Your task to perform on an android device: Turn off the flashlight Image 0: 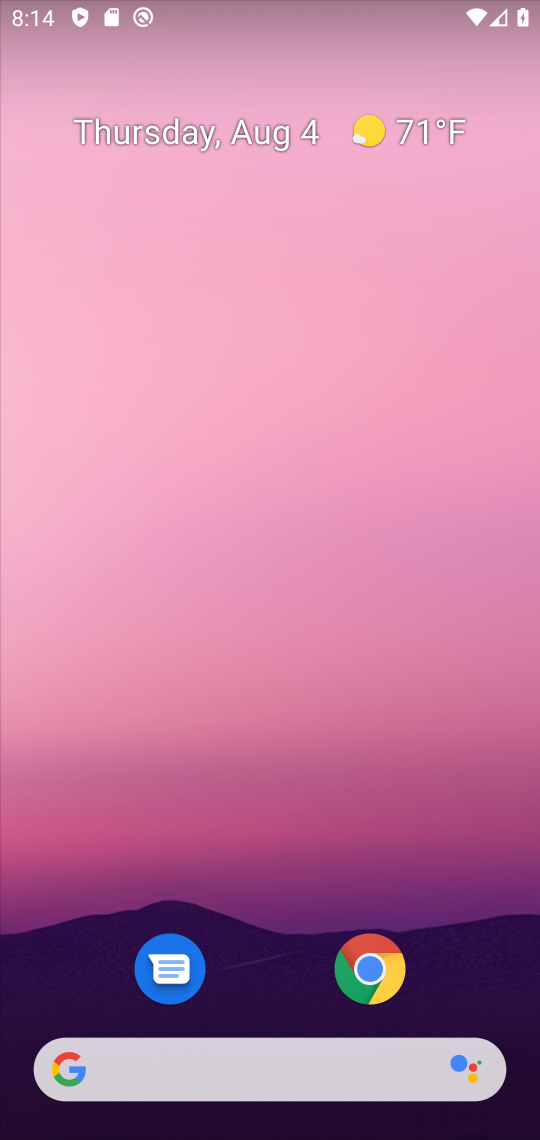
Step 0: press home button
Your task to perform on an android device: Turn off the flashlight Image 1: 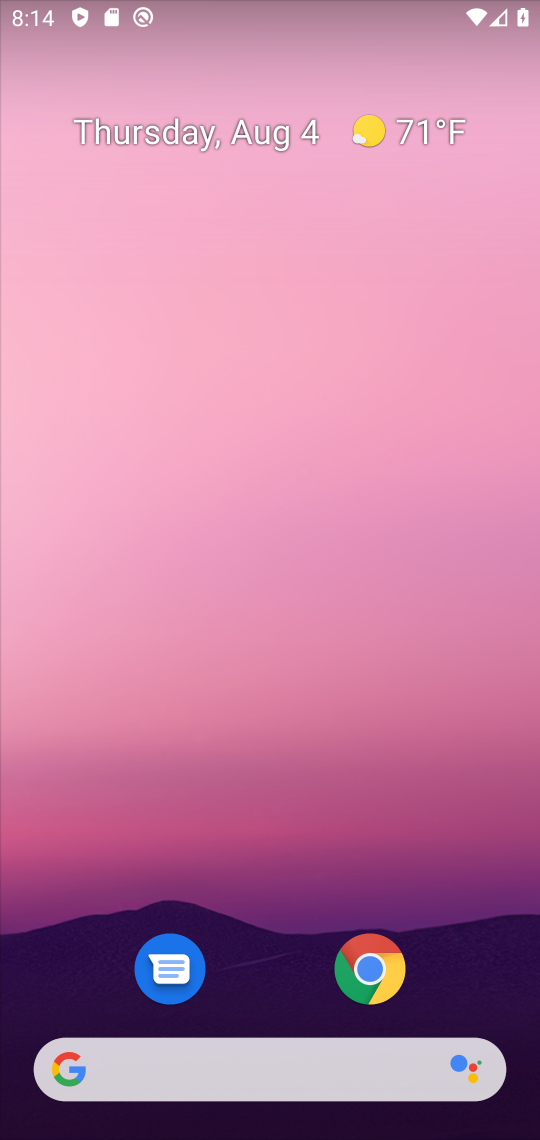
Step 1: drag from (287, 996) to (341, 128)
Your task to perform on an android device: Turn off the flashlight Image 2: 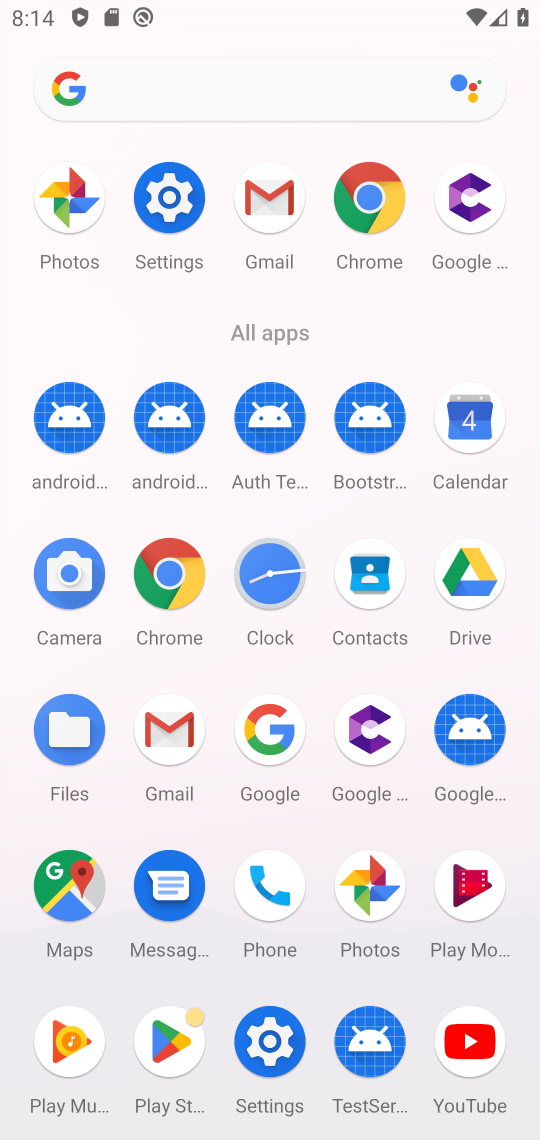
Step 2: click (191, 186)
Your task to perform on an android device: Turn off the flashlight Image 3: 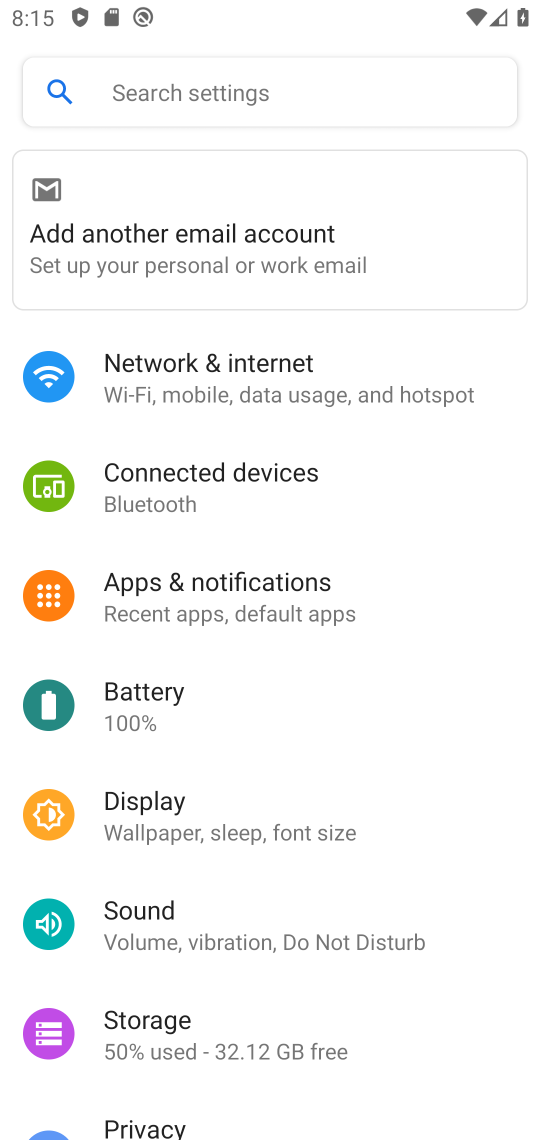
Step 3: click (144, 87)
Your task to perform on an android device: Turn off the flashlight Image 4: 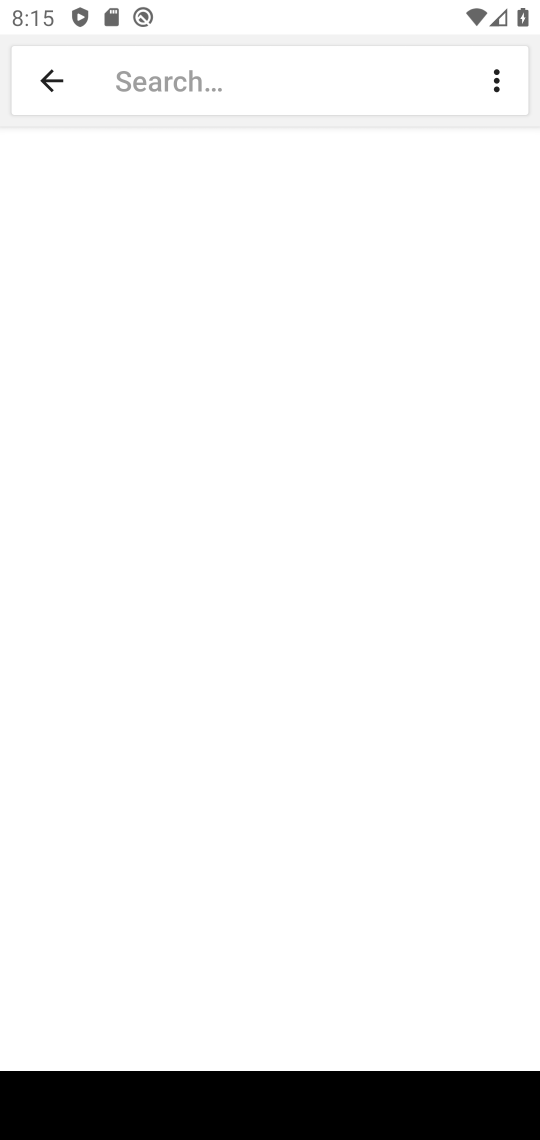
Step 4: type "flashlight"
Your task to perform on an android device: Turn off the flashlight Image 5: 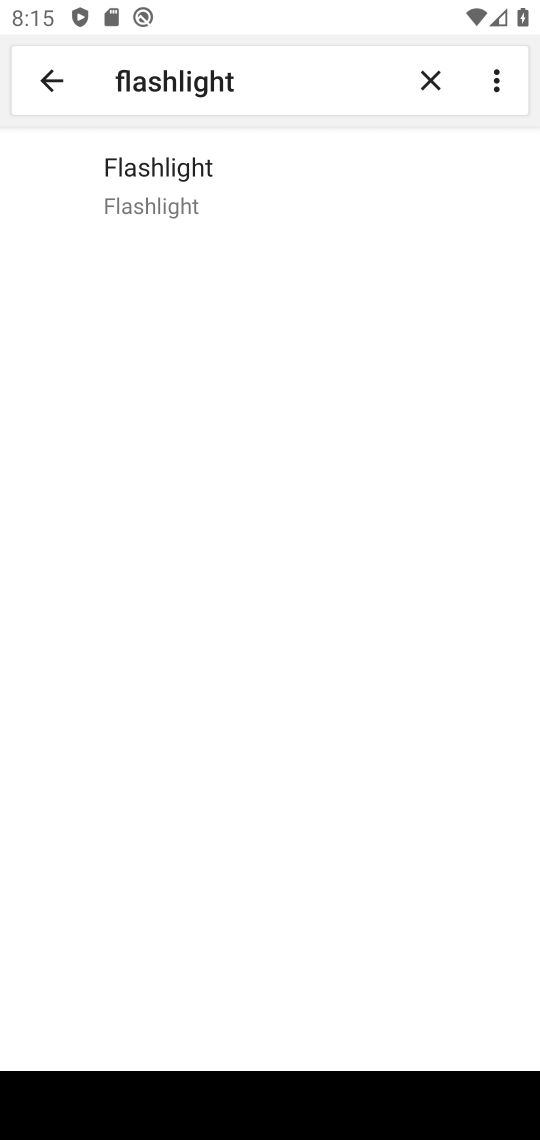
Step 5: click (141, 171)
Your task to perform on an android device: Turn off the flashlight Image 6: 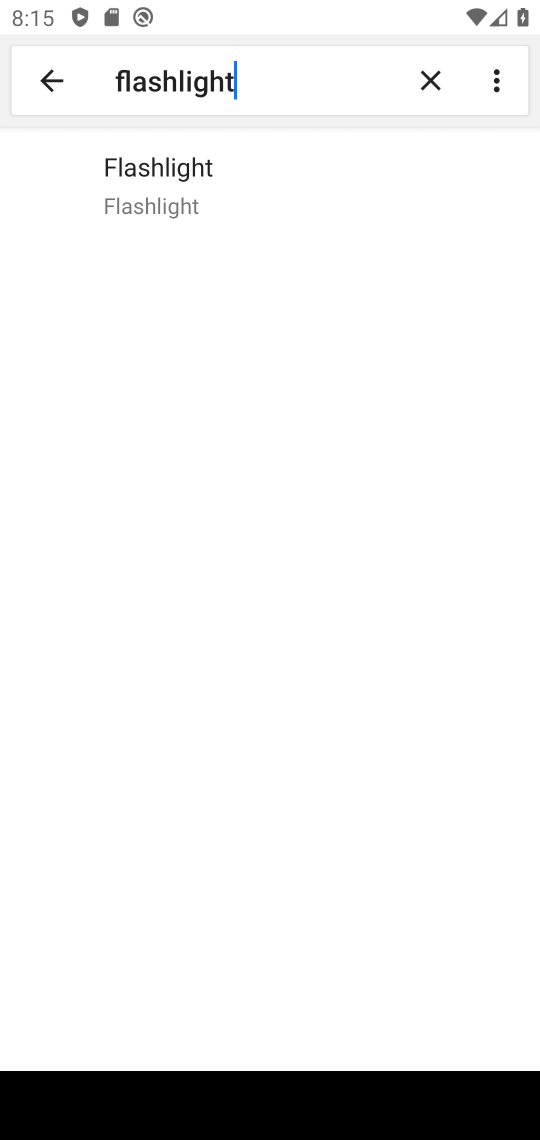
Step 6: click (197, 175)
Your task to perform on an android device: Turn off the flashlight Image 7: 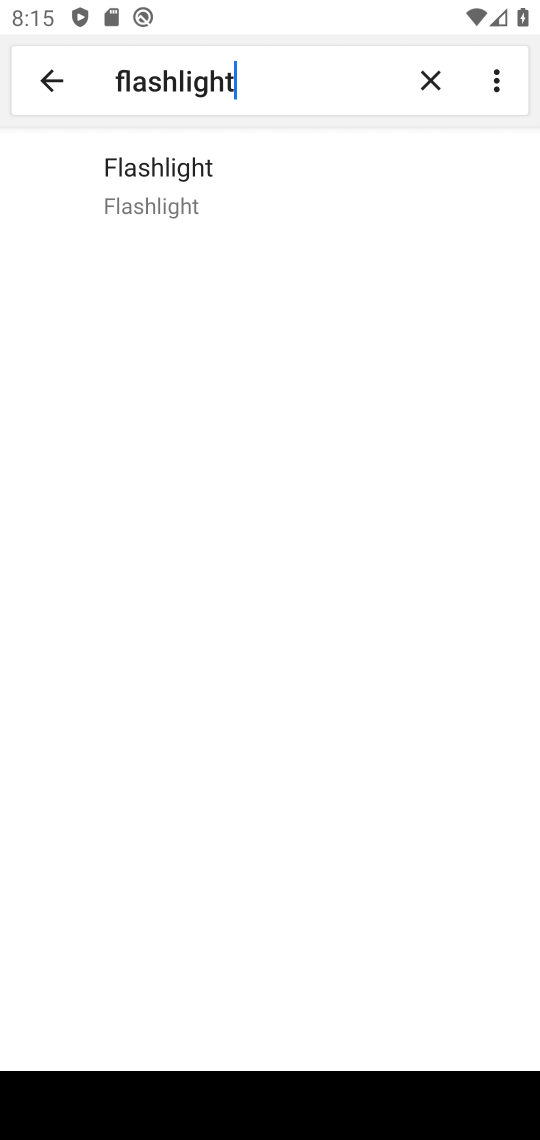
Step 7: task complete